Your task to perform on an android device: check storage Image 0: 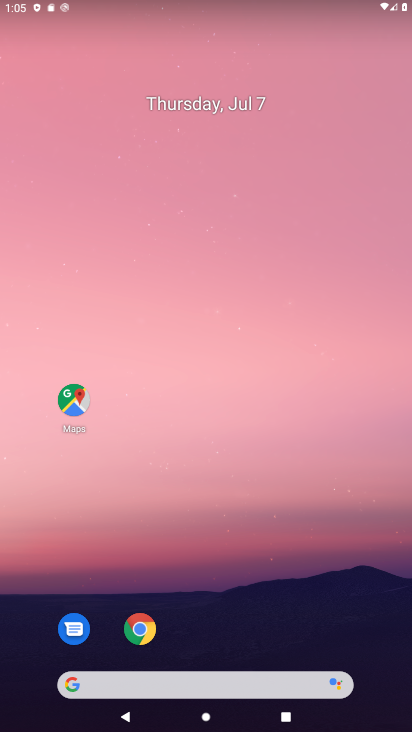
Step 0: drag from (242, 638) to (26, 662)
Your task to perform on an android device: check storage Image 1: 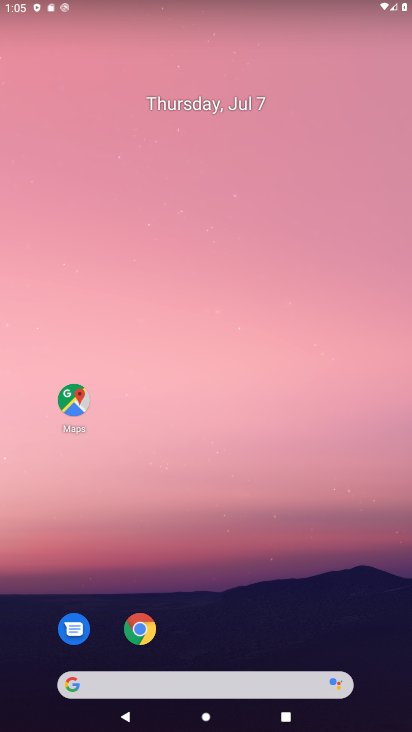
Step 1: drag from (215, 637) to (194, 29)
Your task to perform on an android device: check storage Image 2: 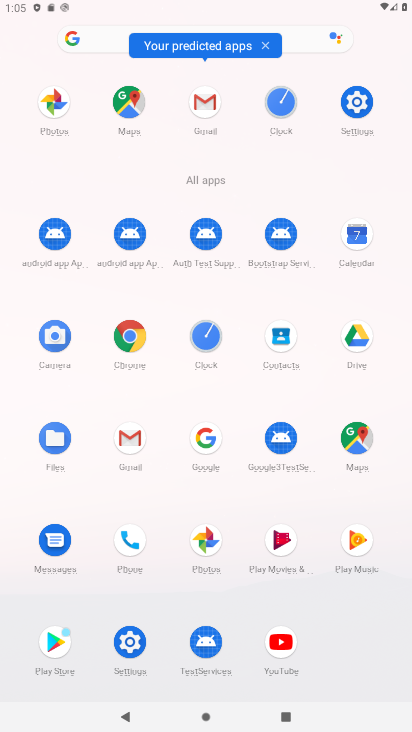
Step 2: click (352, 103)
Your task to perform on an android device: check storage Image 3: 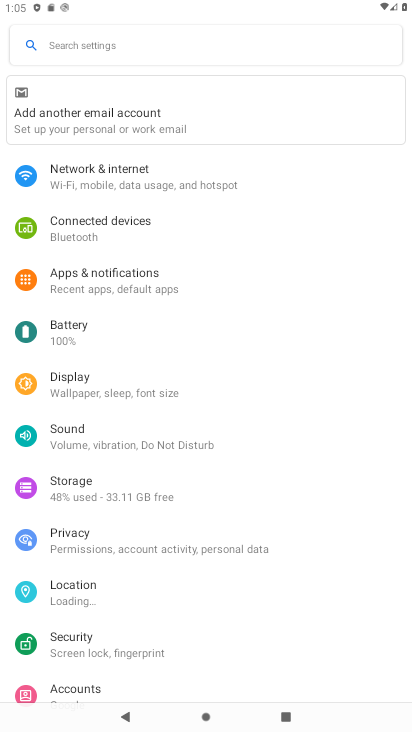
Step 3: drag from (144, 591) to (159, 240)
Your task to perform on an android device: check storage Image 4: 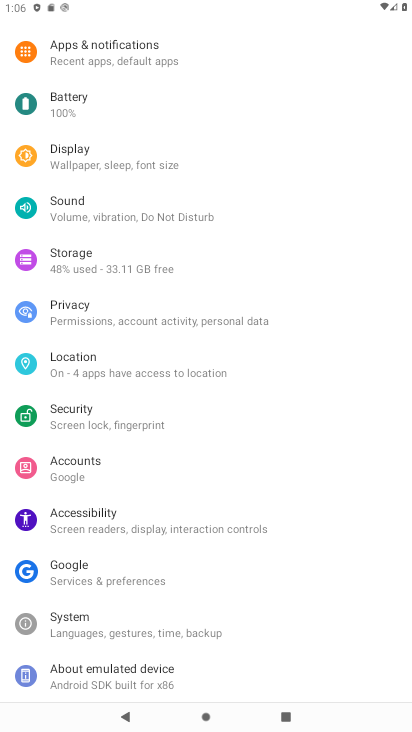
Step 4: click (73, 251)
Your task to perform on an android device: check storage Image 5: 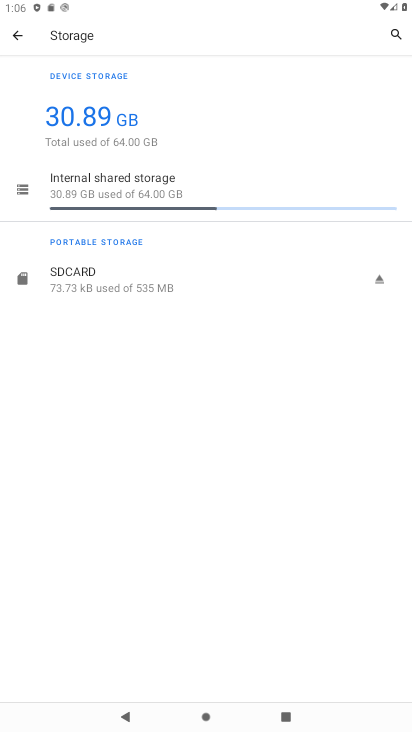
Step 5: task complete